Your task to perform on an android device: Do I have any events tomorrow? Image 0: 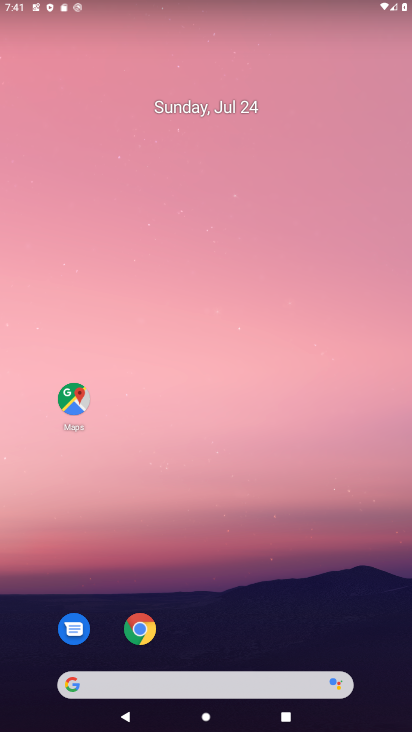
Step 0: drag from (374, 594) to (349, 94)
Your task to perform on an android device: Do I have any events tomorrow? Image 1: 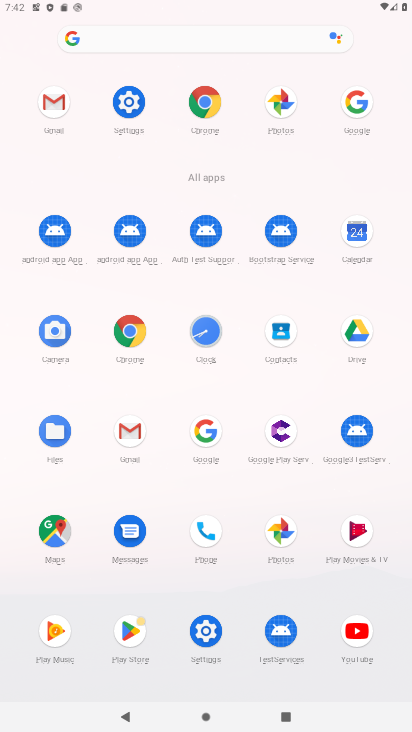
Step 1: click (363, 238)
Your task to perform on an android device: Do I have any events tomorrow? Image 2: 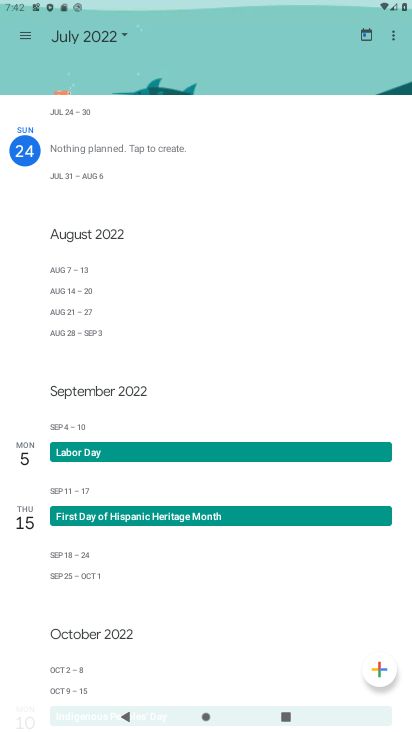
Step 2: task complete